Your task to perform on an android device: turn off airplane mode Image 0: 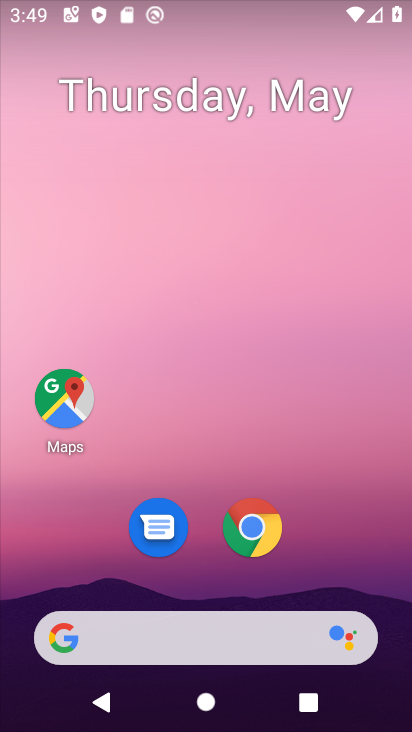
Step 0: drag from (378, 601) to (336, 82)
Your task to perform on an android device: turn off airplane mode Image 1: 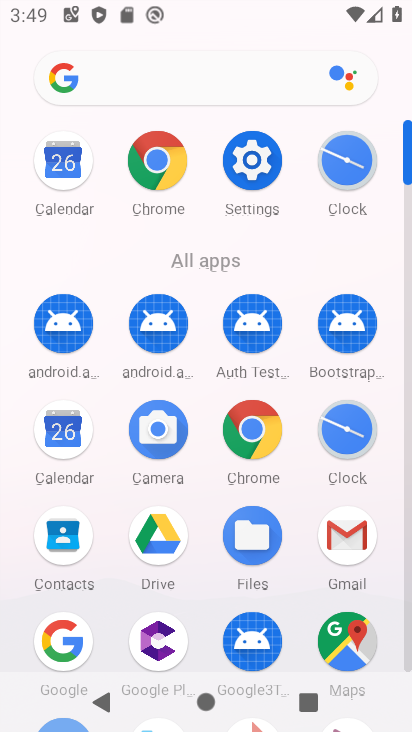
Step 1: click (408, 639)
Your task to perform on an android device: turn off airplane mode Image 2: 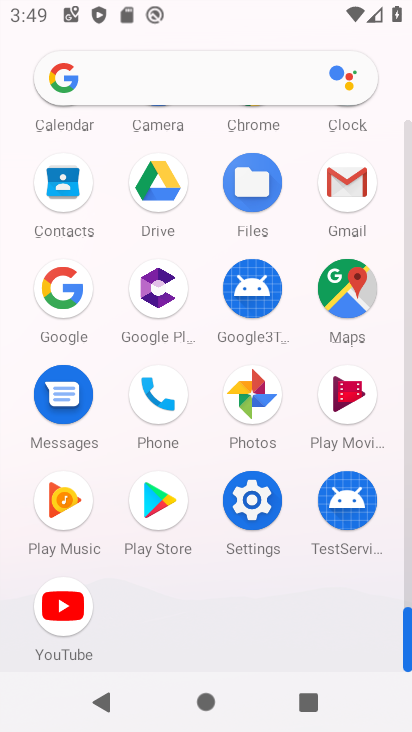
Step 2: click (251, 502)
Your task to perform on an android device: turn off airplane mode Image 3: 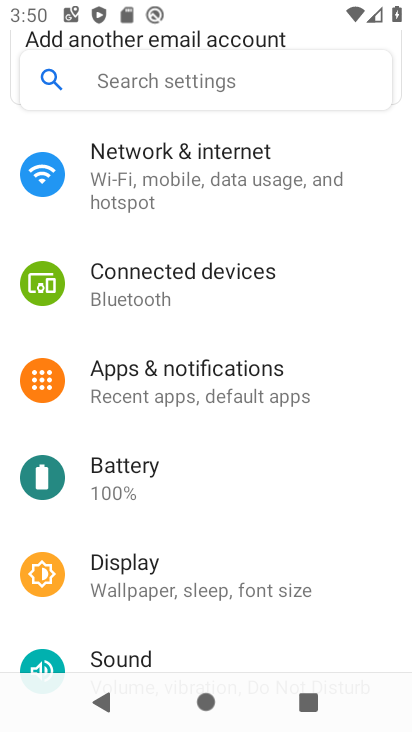
Step 3: click (168, 153)
Your task to perform on an android device: turn off airplane mode Image 4: 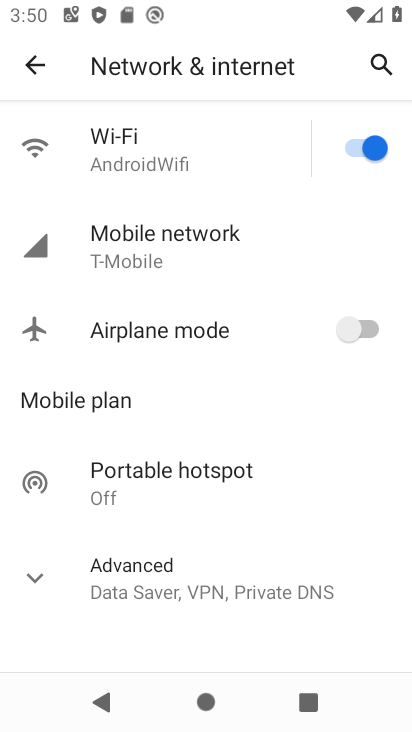
Step 4: task complete